Your task to perform on an android device: delete the emails in spam in the gmail app Image 0: 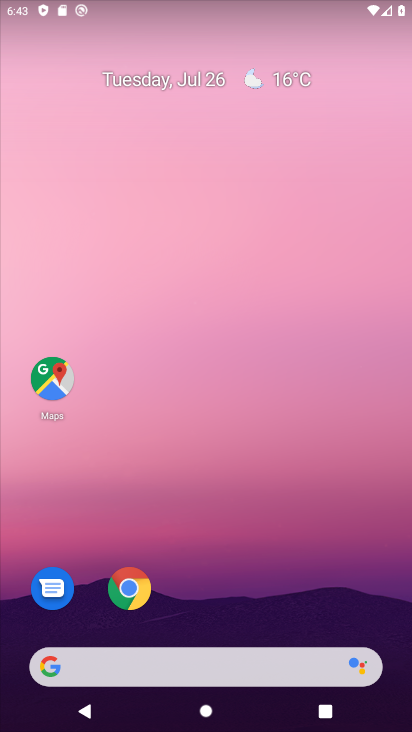
Step 0: drag from (242, 574) to (233, 179)
Your task to perform on an android device: delete the emails in spam in the gmail app Image 1: 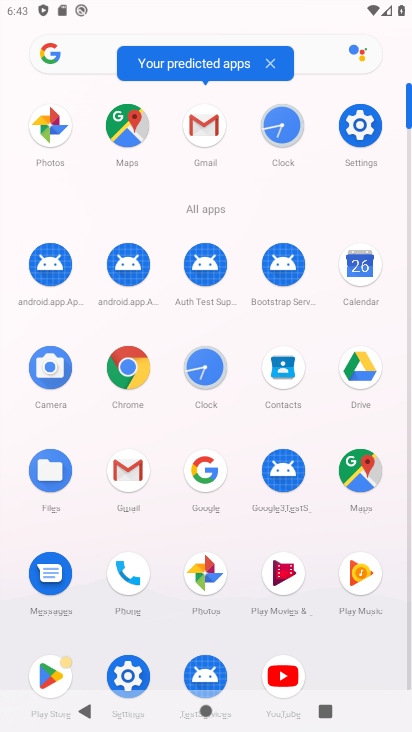
Step 1: click (125, 481)
Your task to perform on an android device: delete the emails in spam in the gmail app Image 2: 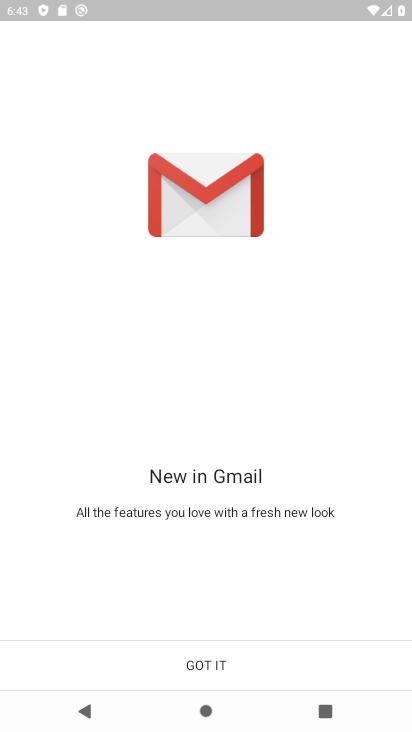
Step 2: click (202, 662)
Your task to perform on an android device: delete the emails in spam in the gmail app Image 3: 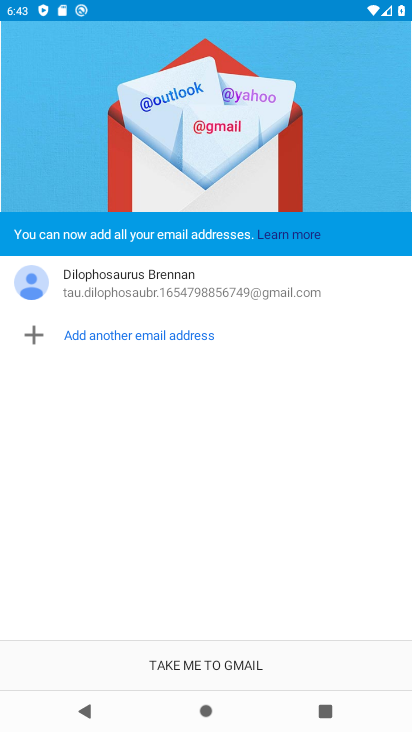
Step 3: click (217, 667)
Your task to perform on an android device: delete the emails in spam in the gmail app Image 4: 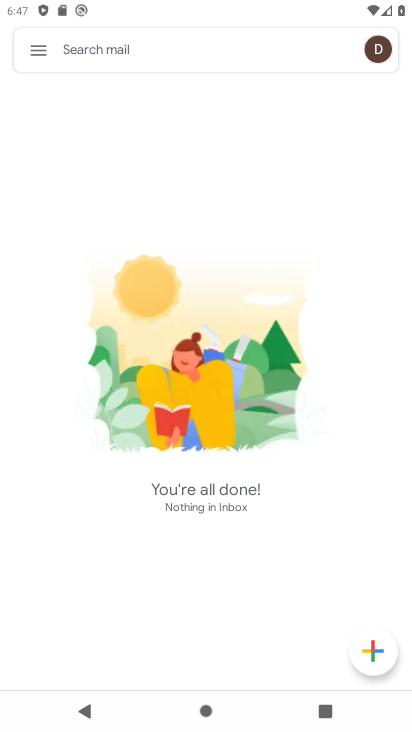
Step 4: click (40, 51)
Your task to perform on an android device: delete the emails in spam in the gmail app Image 5: 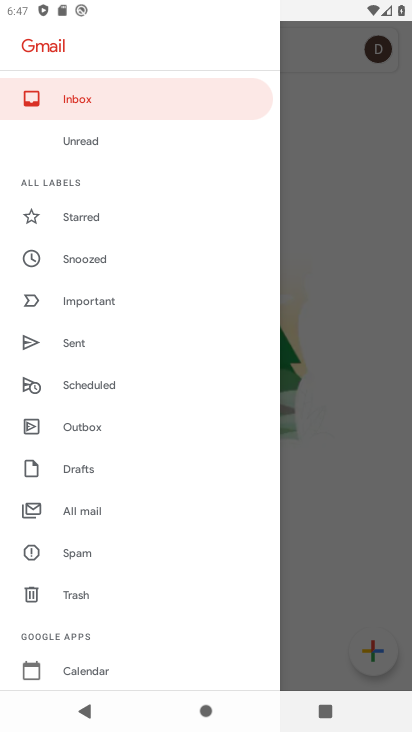
Step 5: click (71, 550)
Your task to perform on an android device: delete the emails in spam in the gmail app Image 6: 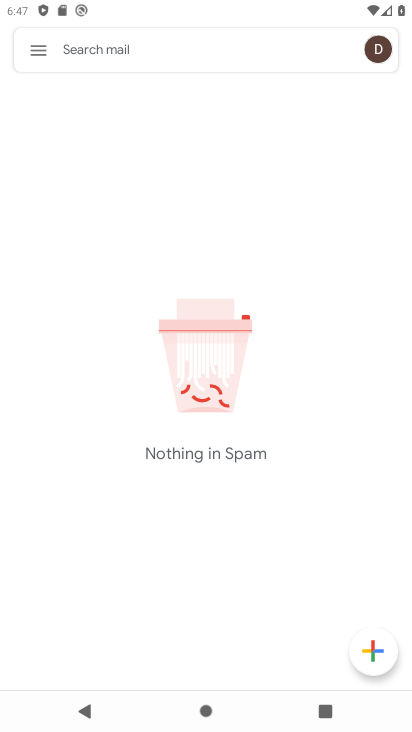
Step 6: task complete